Your task to perform on an android device: Open the stopwatch Image 0: 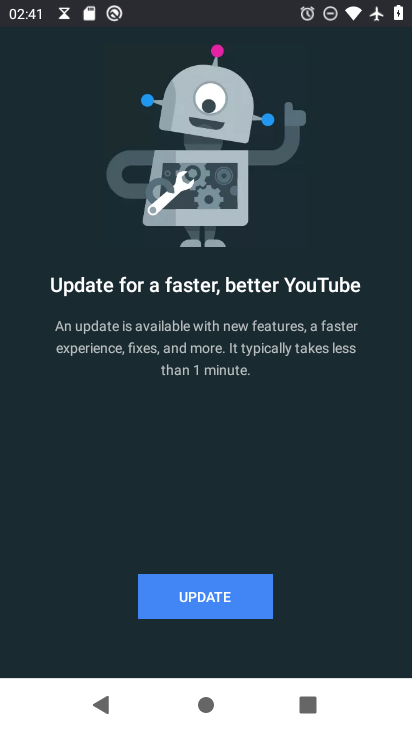
Step 0: press home button
Your task to perform on an android device: Open the stopwatch Image 1: 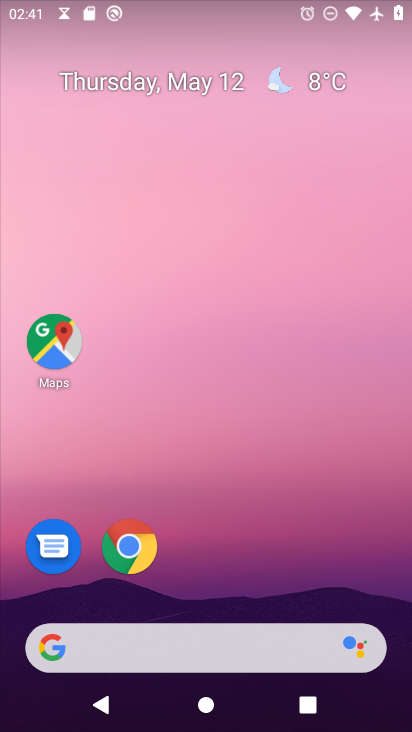
Step 1: drag from (208, 665) to (259, 216)
Your task to perform on an android device: Open the stopwatch Image 2: 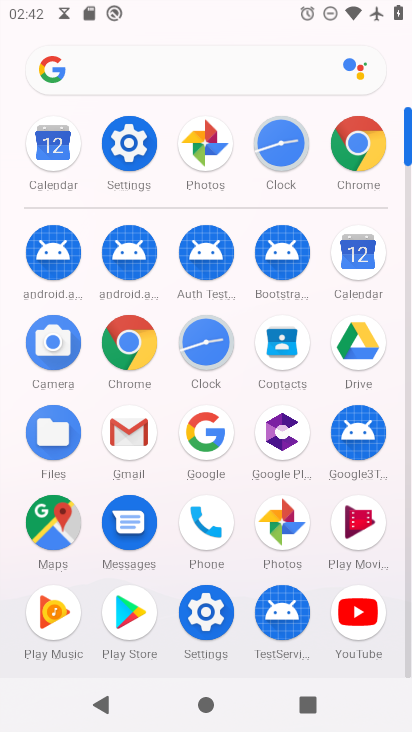
Step 2: click (283, 152)
Your task to perform on an android device: Open the stopwatch Image 3: 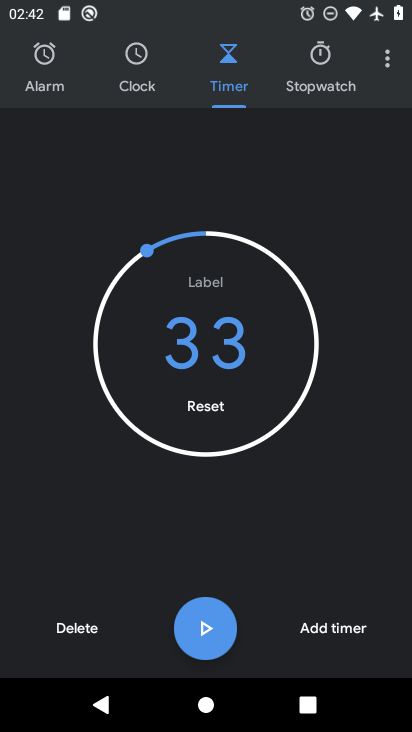
Step 3: click (319, 69)
Your task to perform on an android device: Open the stopwatch Image 4: 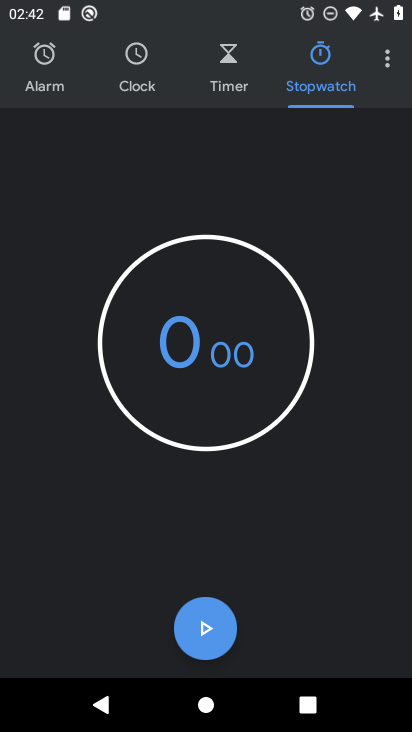
Step 4: task complete